Your task to perform on an android device: delete browsing data in the chrome app Image 0: 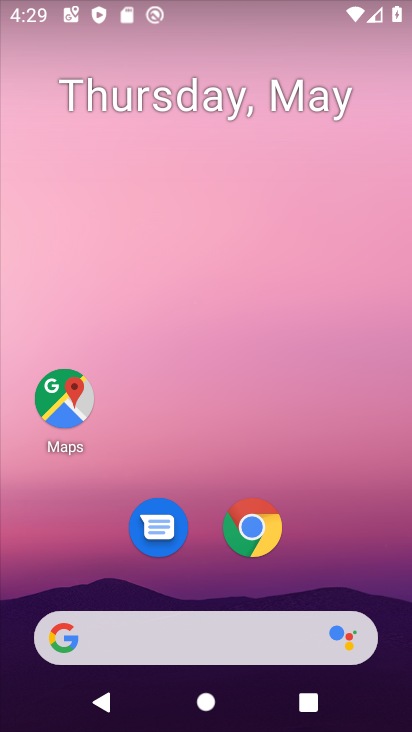
Step 0: drag from (338, 513) to (323, 5)
Your task to perform on an android device: delete browsing data in the chrome app Image 1: 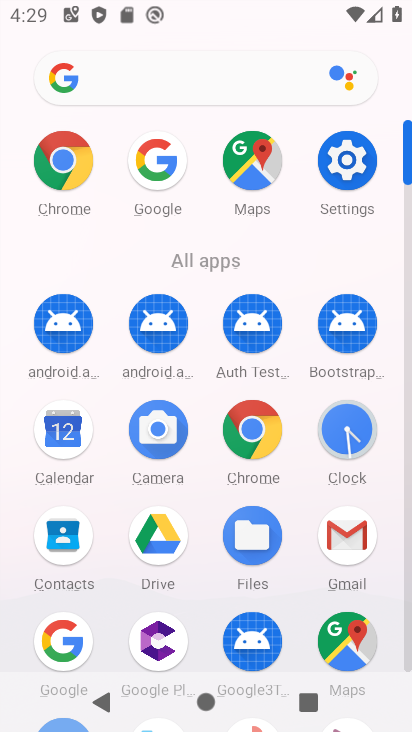
Step 1: click (54, 177)
Your task to perform on an android device: delete browsing data in the chrome app Image 2: 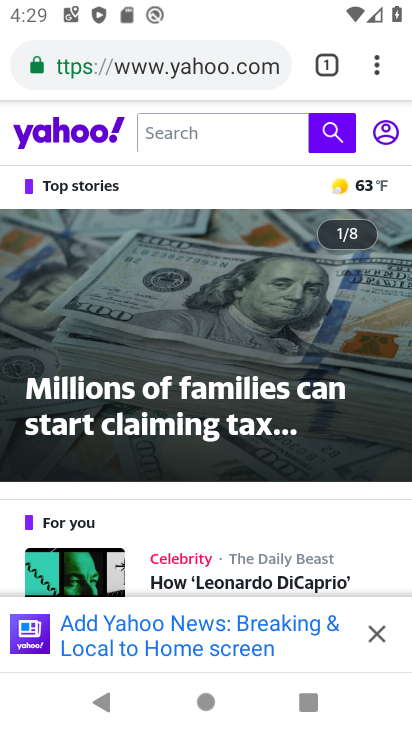
Step 2: task complete